Your task to perform on an android device: Open battery settings Image 0: 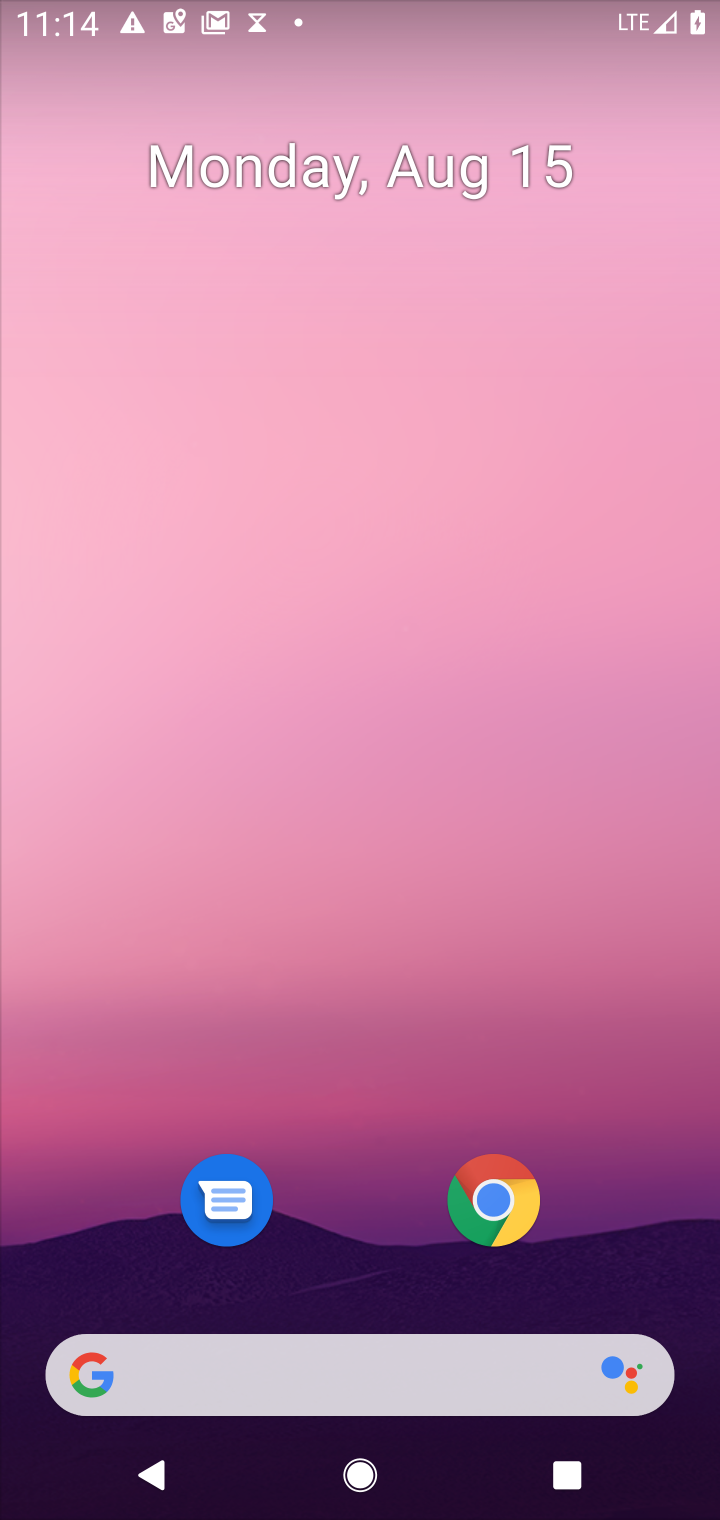
Step 0: drag from (358, 1213) to (341, 269)
Your task to perform on an android device: Open battery settings Image 1: 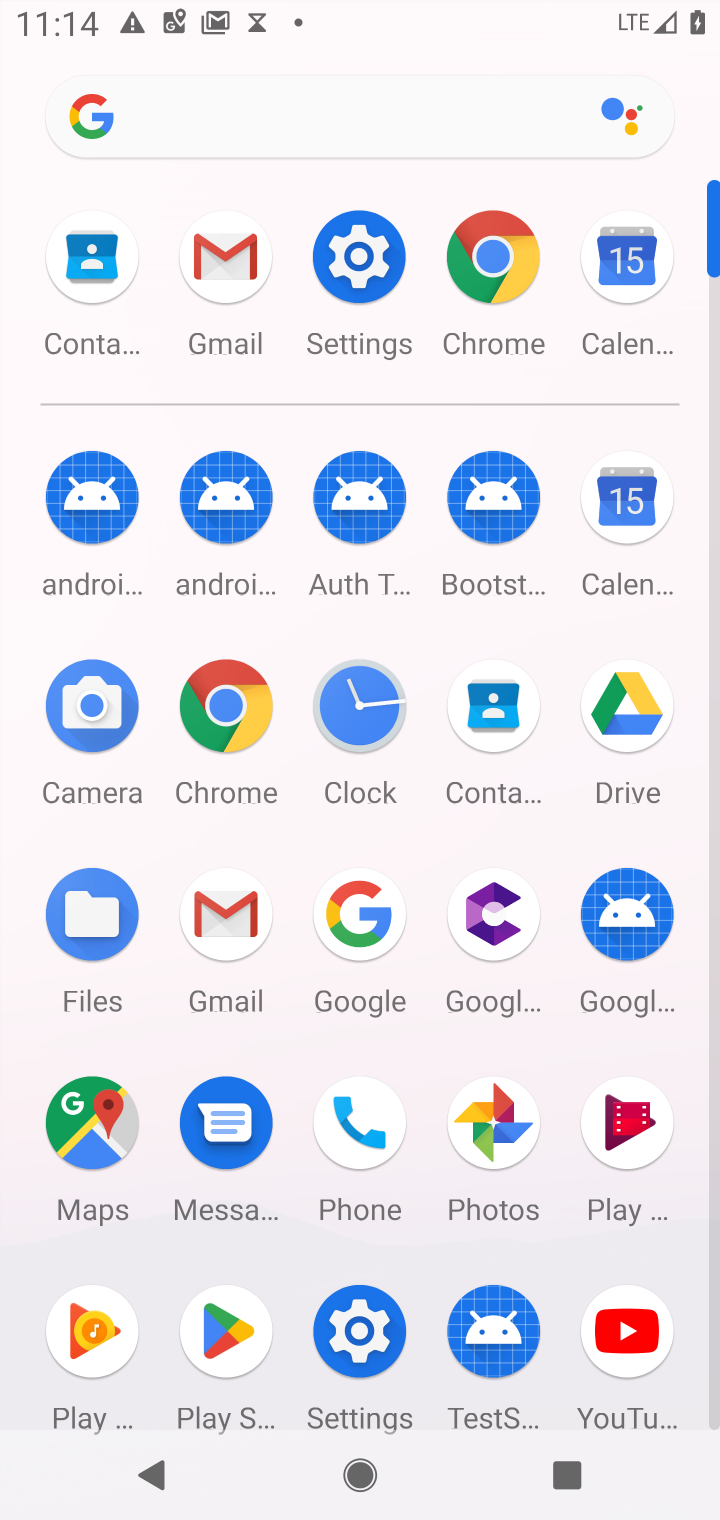
Step 1: click (382, 248)
Your task to perform on an android device: Open battery settings Image 2: 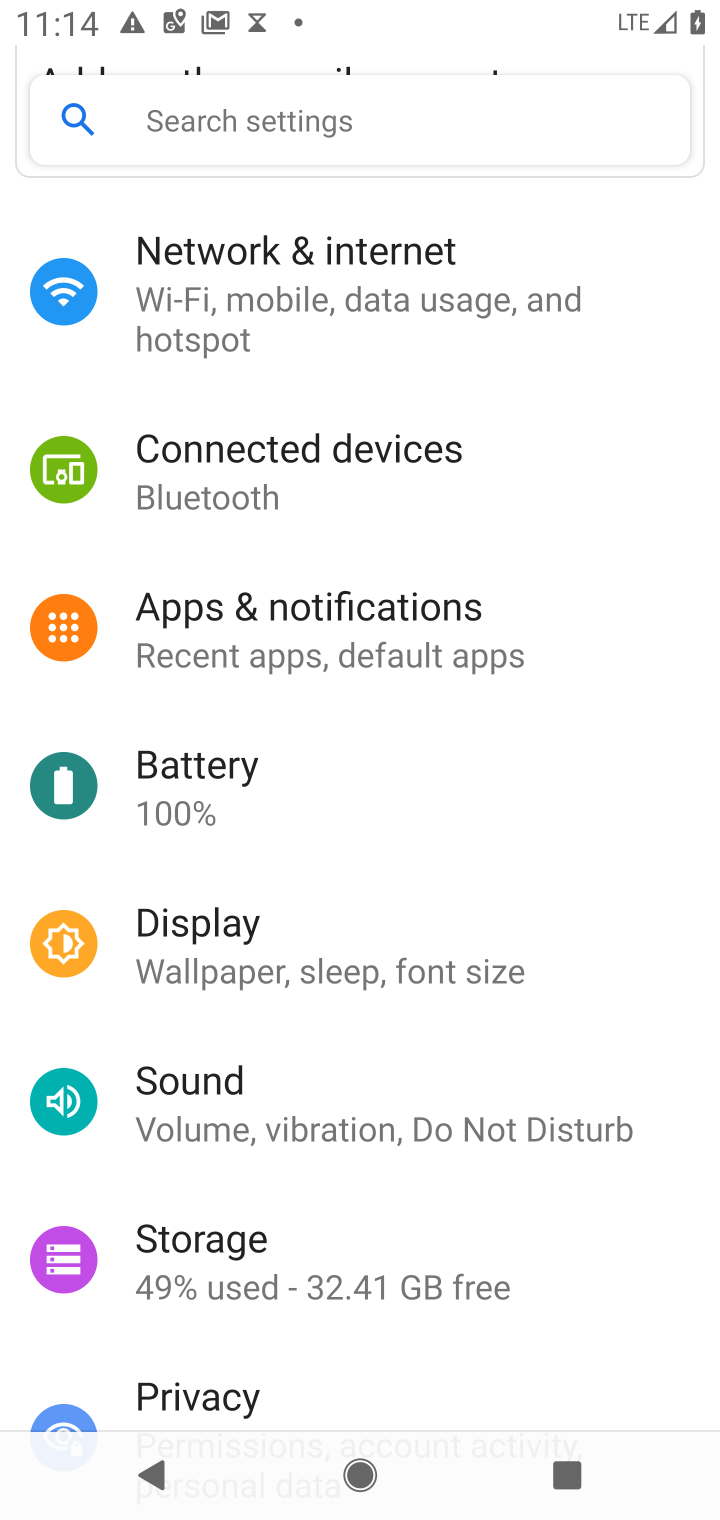
Step 2: click (278, 767)
Your task to perform on an android device: Open battery settings Image 3: 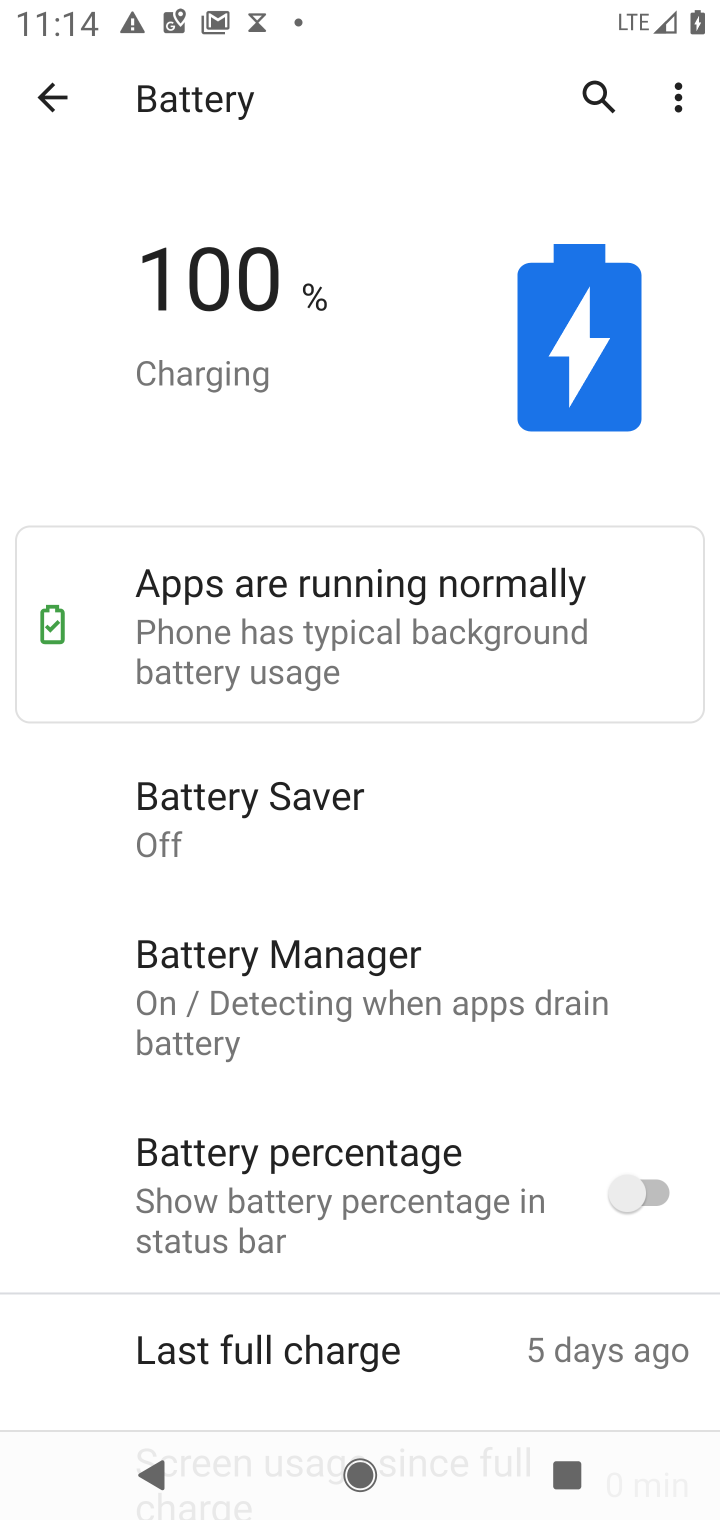
Step 3: task complete